Your task to perform on an android device: Open calendar and show me the fourth week of next month Image 0: 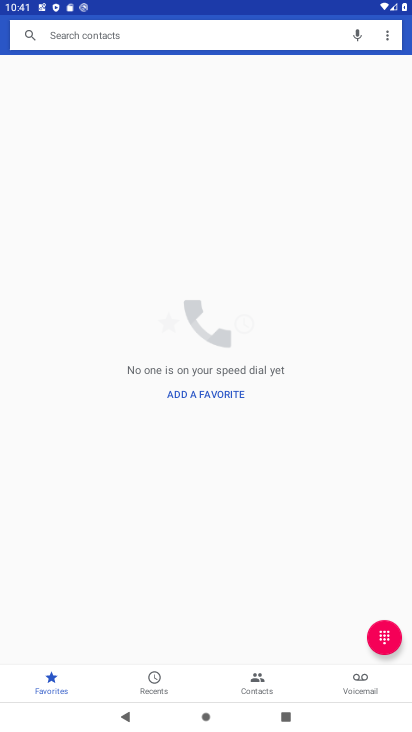
Step 0: press home button
Your task to perform on an android device: Open calendar and show me the fourth week of next month Image 1: 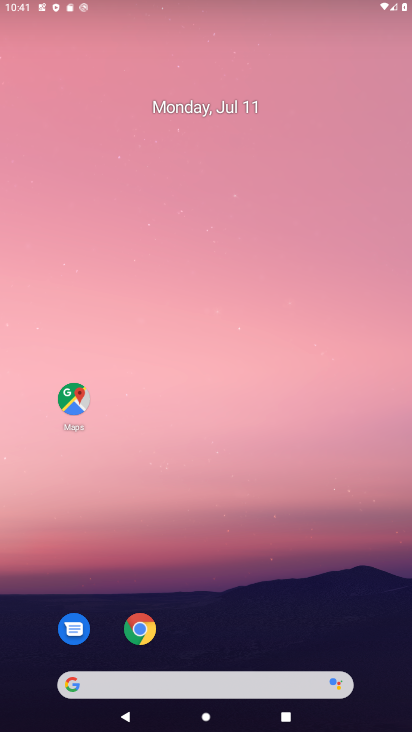
Step 1: drag from (197, 637) to (171, 126)
Your task to perform on an android device: Open calendar and show me the fourth week of next month Image 2: 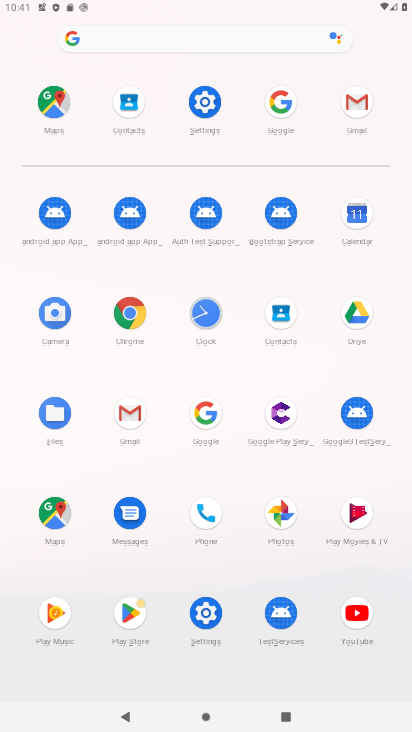
Step 2: click (360, 208)
Your task to perform on an android device: Open calendar and show me the fourth week of next month Image 3: 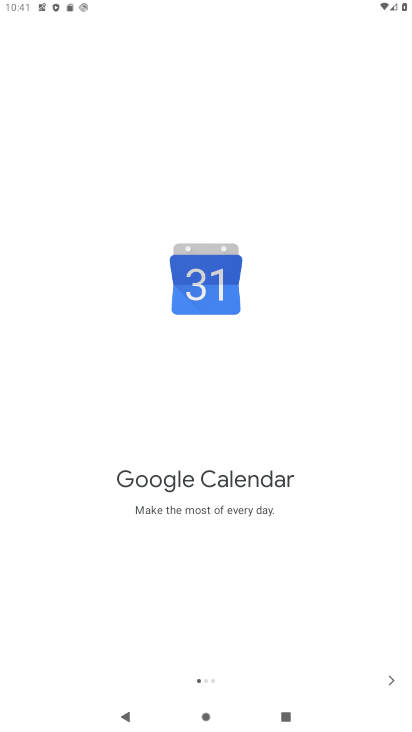
Step 3: click (391, 680)
Your task to perform on an android device: Open calendar and show me the fourth week of next month Image 4: 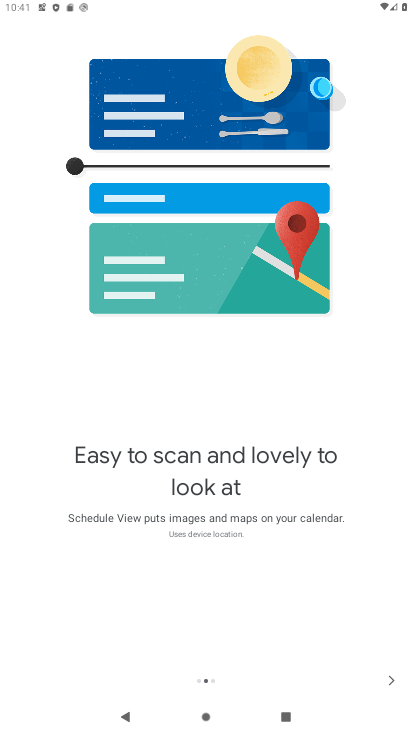
Step 4: click (390, 680)
Your task to perform on an android device: Open calendar and show me the fourth week of next month Image 5: 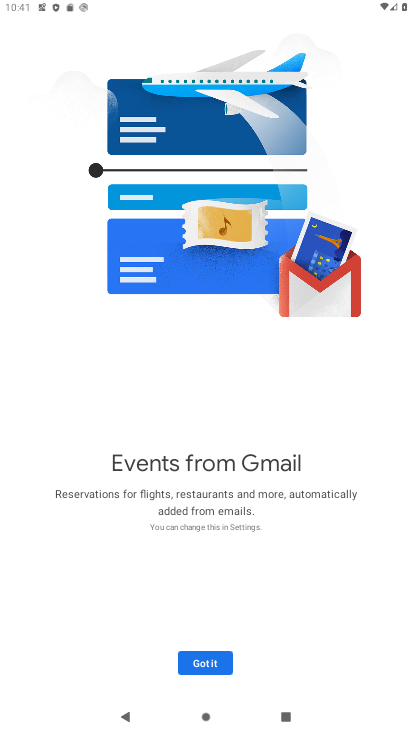
Step 5: click (215, 666)
Your task to perform on an android device: Open calendar and show me the fourth week of next month Image 6: 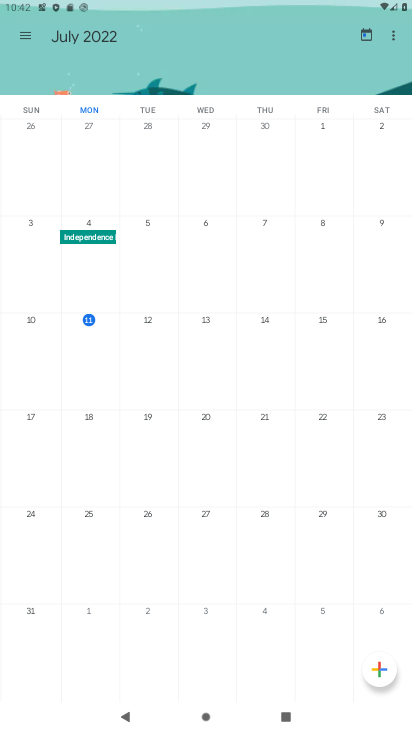
Step 6: click (29, 37)
Your task to perform on an android device: Open calendar and show me the fourth week of next month Image 7: 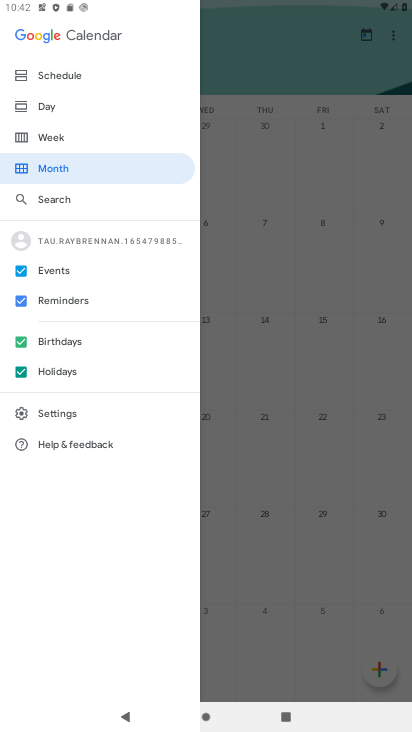
Step 7: click (63, 73)
Your task to perform on an android device: Open calendar and show me the fourth week of next month Image 8: 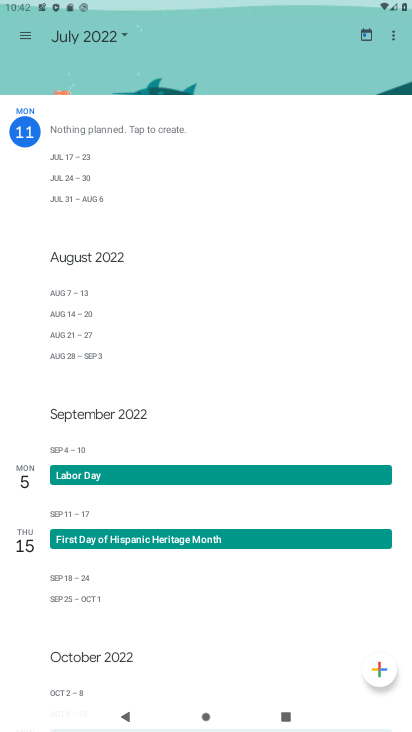
Step 8: click (116, 45)
Your task to perform on an android device: Open calendar and show me the fourth week of next month Image 9: 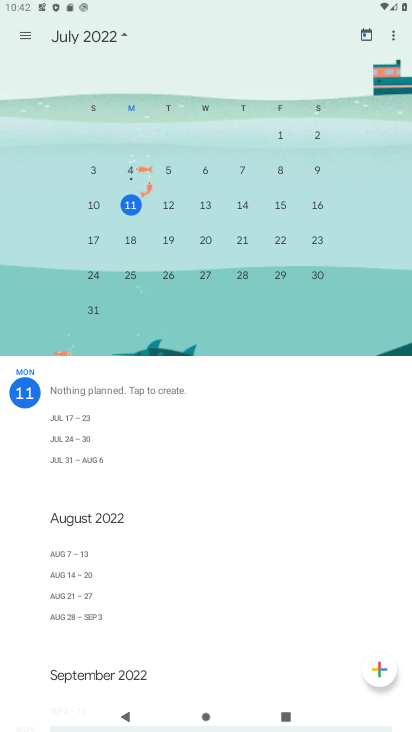
Step 9: drag from (367, 221) to (1, 225)
Your task to perform on an android device: Open calendar and show me the fourth week of next month Image 10: 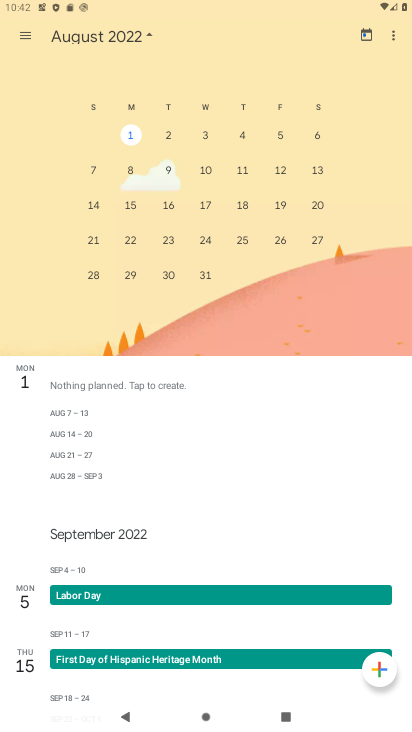
Step 10: click (98, 232)
Your task to perform on an android device: Open calendar and show me the fourth week of next month Image 11: 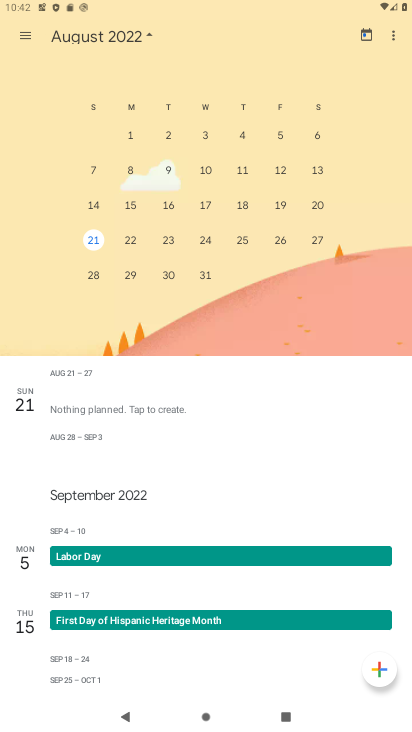
Step 11: task complete